Your task to perform on an android device: Go to battery settings Image 0: 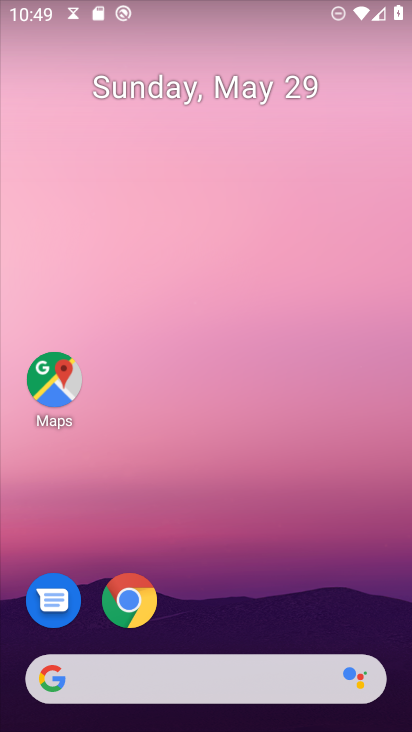
Step 0: drag from (226, 726) to (231, 173)
Your task to perform on an android device: Go to battery settings Image 1: 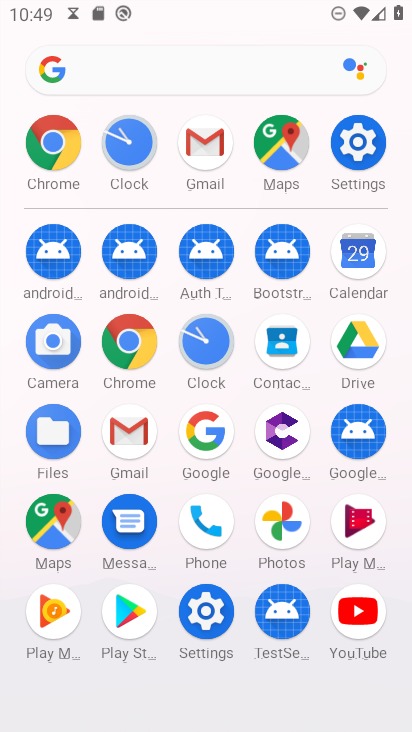
Step 1: click (367, 138)
Your task to perform on an android device: Go to battery settings Image 2: 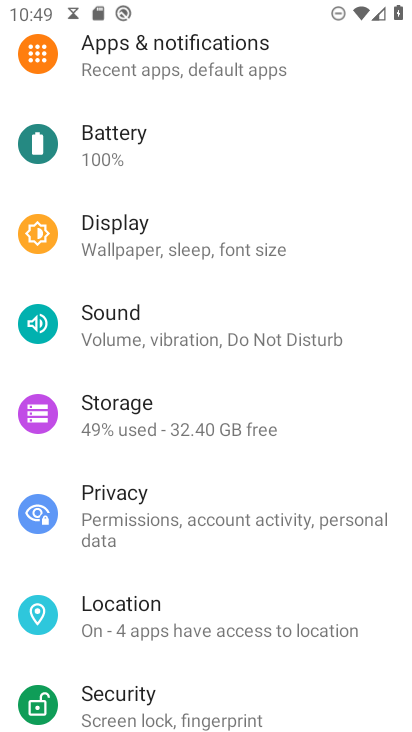
Step 2: click (111, 138)
Your task to perform on an android device: Go to battery settings Image 3: 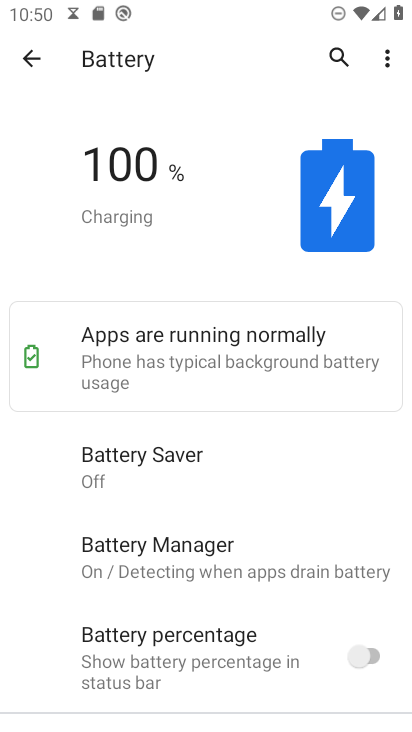
Step 3: task complete